Your task to perform on an android device: toggle sleep mode Image 0: 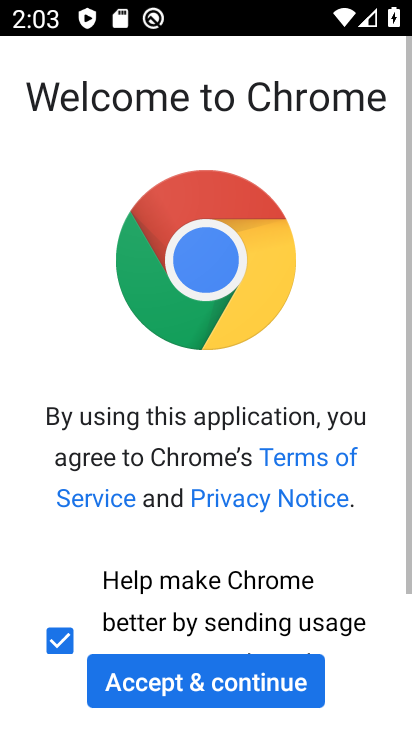
Step 0: press back button
Your task to perform on an android device: toggle sleep mode Image 1: 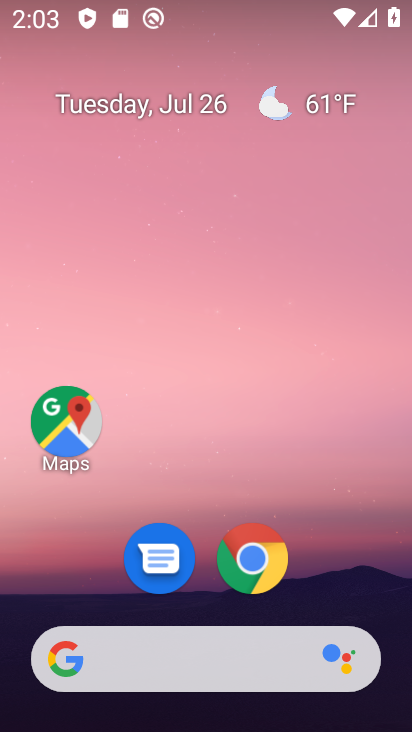
Step 1: drag from (79, 614) to (214, 49)
Your task to perform on an android device: toggle sleep mode Image 2: 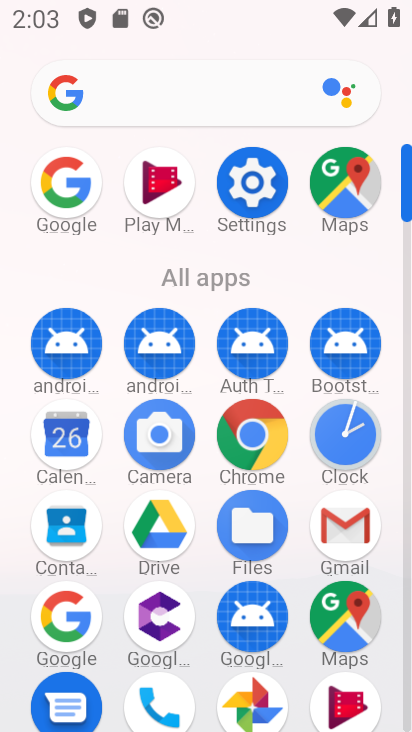
Step 2: click (256, 177)
Your task to perform on an android device: toggle sleep mode Image 3: 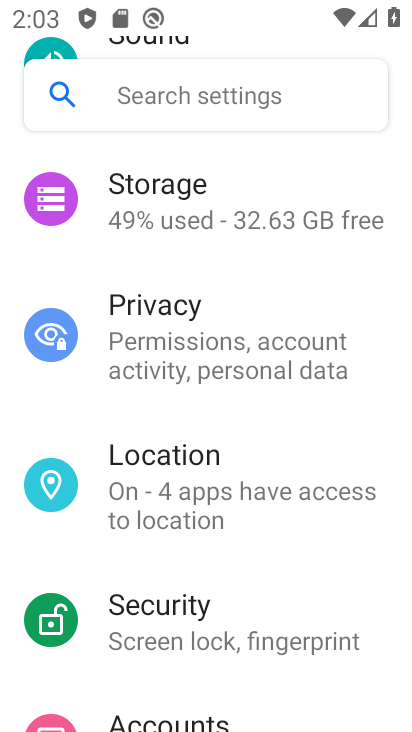
Step 3: click (210, 102)
Your task to perform on an android device: toggle sleep mode Image 4: 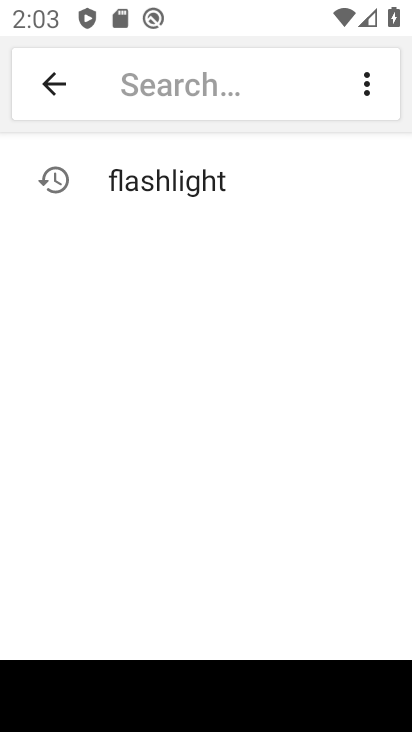
Step 4: type "sleep mode"
Your task to perform on an android device: toggle sleep mode Image 5: 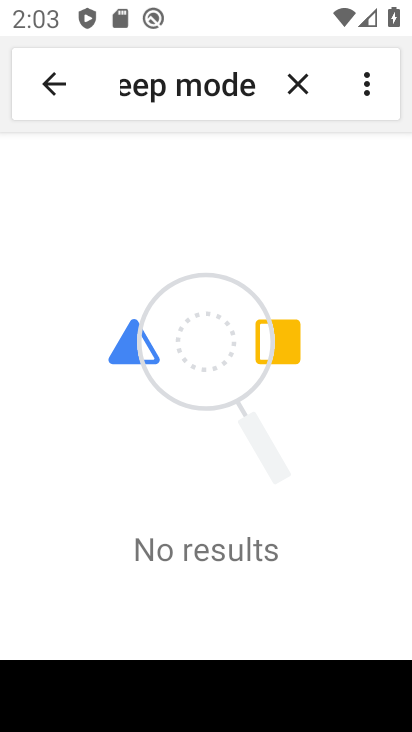
Step 5: task complete